Your task to perform on an android device: Show me popular videos on Youtube Image 0: 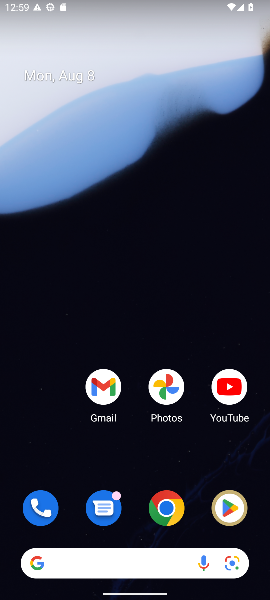
Step 0: drag from (133, 454) to (168, 126)
Your task to perform on an android device: Show me popular videos on Youtube Image 1: 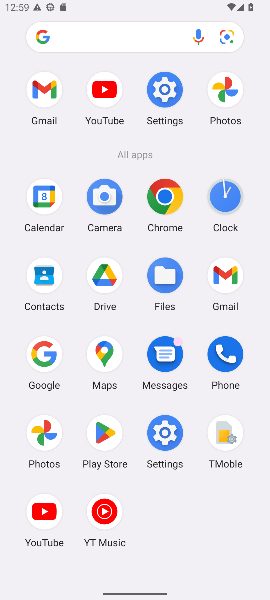
Step 1: click (43, 510)
Your task to perform on an android device: Show me popular videos on Youtube Image 2: 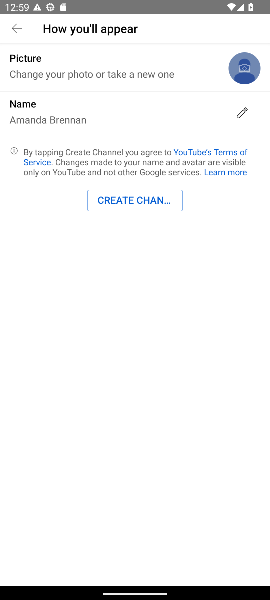
Step 2: click (15, 29)
Your task to perform on an android device: Show me popular videos on Youtube Image 3: 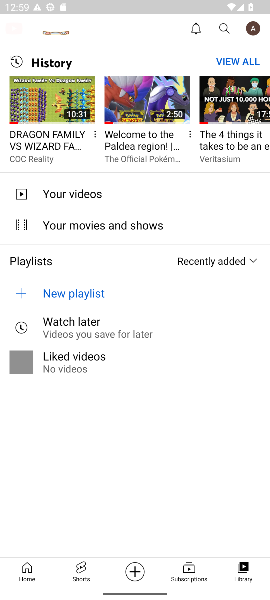
Step 3: click (27, 566)
Your task to perform on an android device: Show me popular videos on Youtube Image 4: 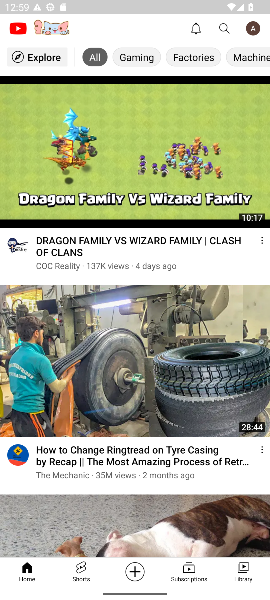
Step 4: task complete